Your task to perform on an android device: What's the weather going to be tomorrow? Image 0: 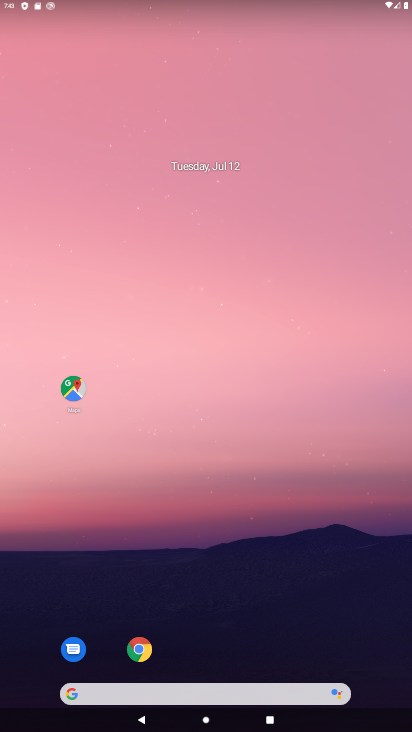
Step 0: drag from (323, 616) to (190, 48)
Your task to perform on an android device: What's the weather going to be tomorrow? Image 1: 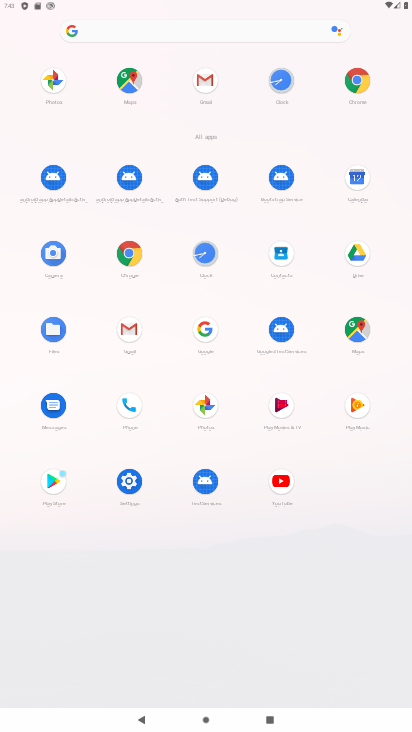
Step 1: click (135, 252)
Your task to perform on an android device: What's the weather going to be tomorrow? Image 2: 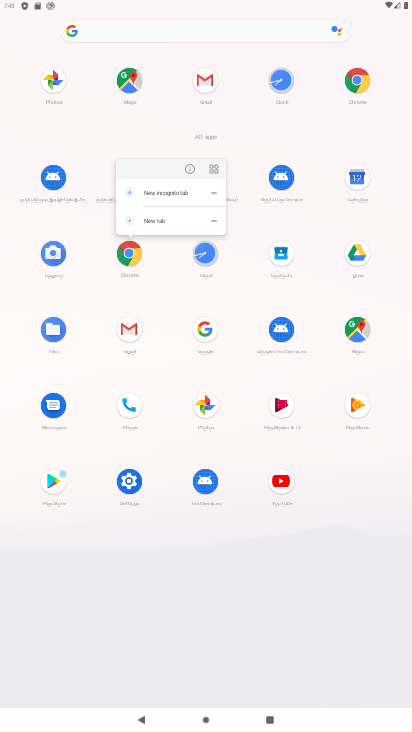
Step 2: click (124, 257)
Your task to perform on an android device: What's the weather going to be tomorrow? Image 3: 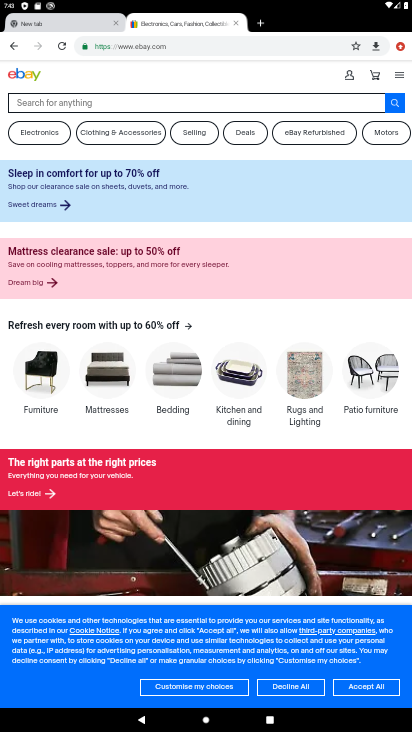
Step 3: click (196, 42)
Your task to perform on an android device: What's the weather going to be tomorrow? Image 4: 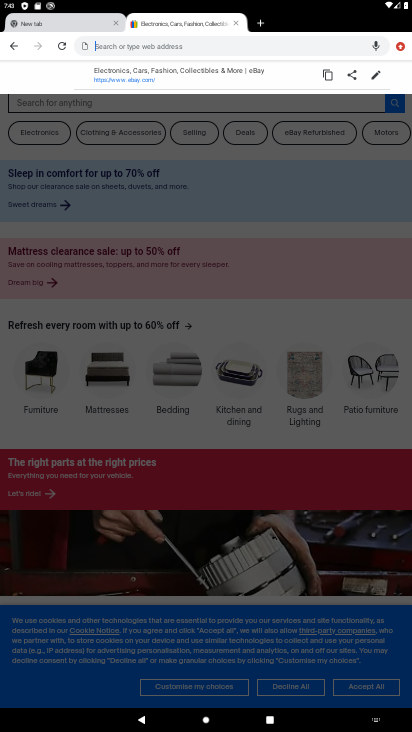
Step 4: type "weather"
Your task to perform on an android device: What's the weather going to be tomorrow? Image 5: 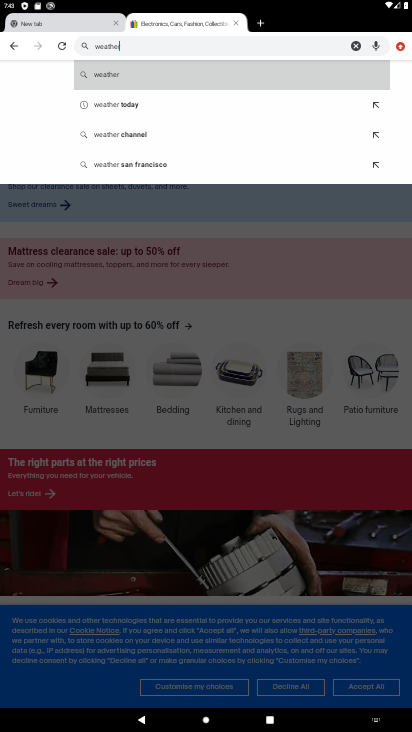
Step 5: click (109, 76)
Your task to perform on an android device: What's the weather going to be tomorrow? Image 6: 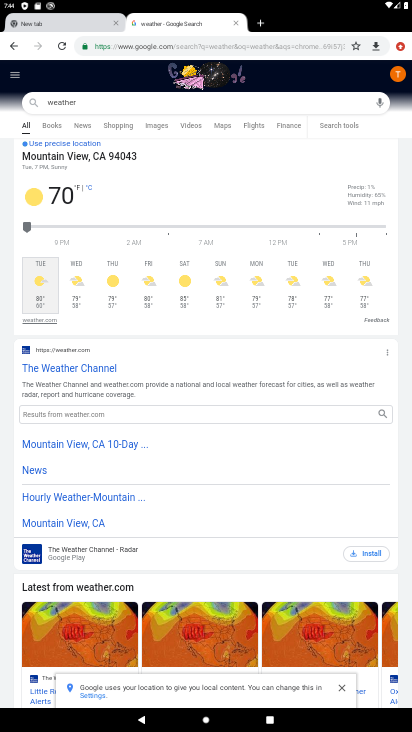
Step 6: click (72, 277)
Your task to perform on an android device: What's the weather going to be tomorrow? Image 7: 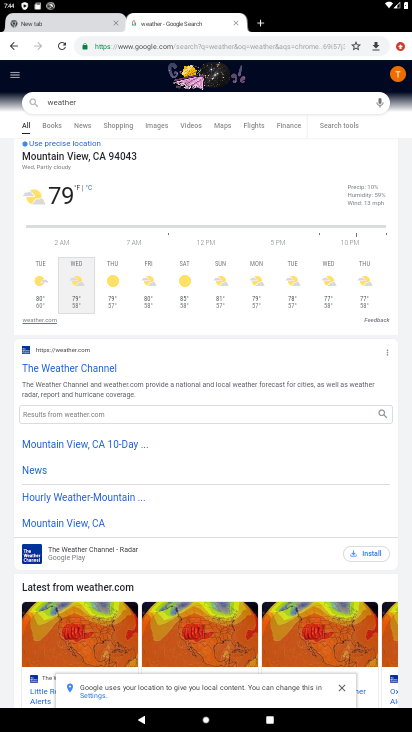
Step 7: task complete